Your task to perform on an android device: turn on the 24-hour format for clock Image 0: 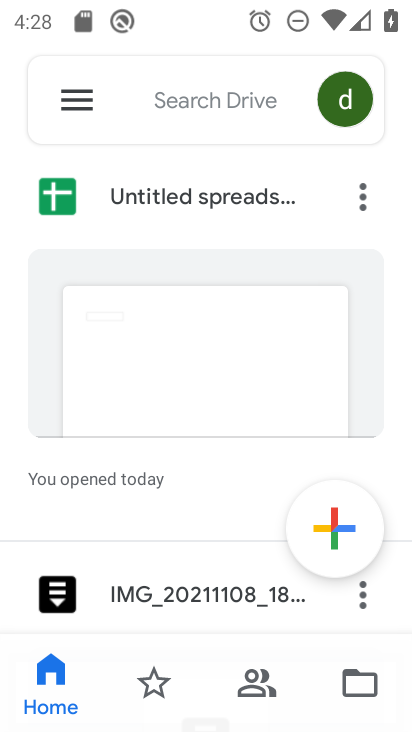
Step 0: press home button
Your task to perform on an android device: turn on the 24-hour format for clock Image 1: 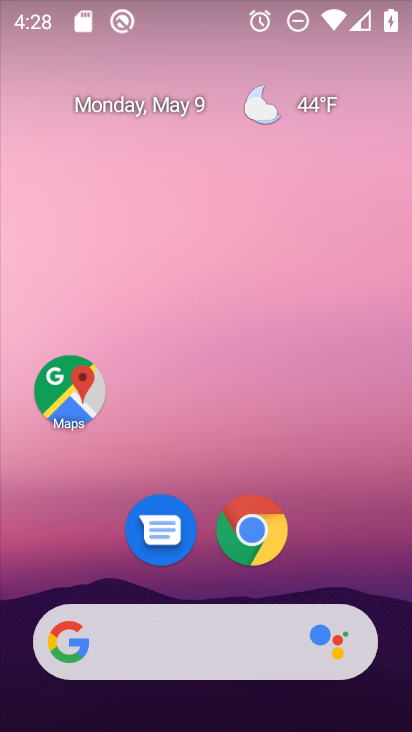
Step 1: drag from (203, 573) to (222, 90)
Your task to perform on an android device: turn on the 24-hour format for clock Image 2: 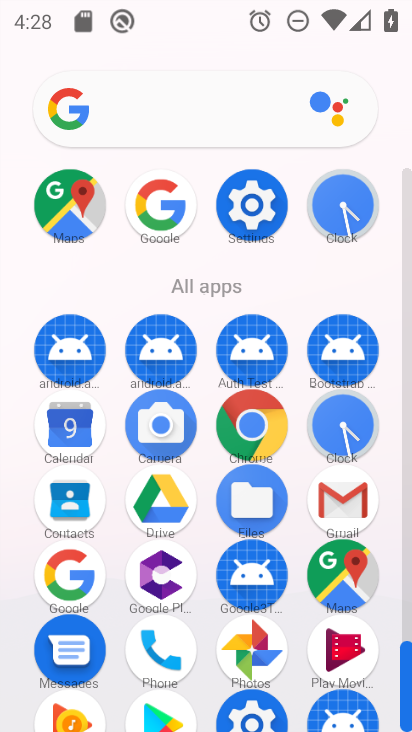
Step 2: click (343, 418)
Your task to perform on an android device: turn on the 24-hour format for clock Image 3: 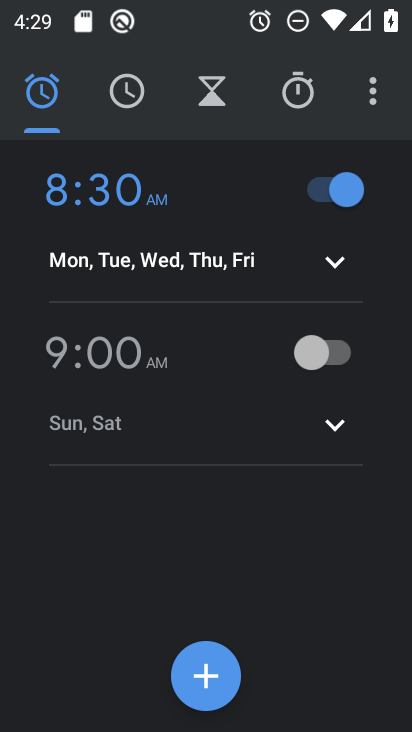
Step 3: click (380, 89)
Your task to perform on an android device: turn on the 24-hour format for clock Image 4: 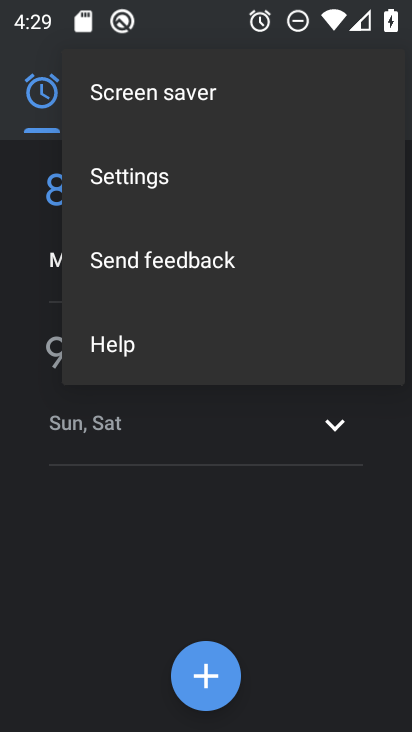
Step 4: click (187, 178)
Your task to perform on an android device: turn on the 24-hour format for clock Image 5: 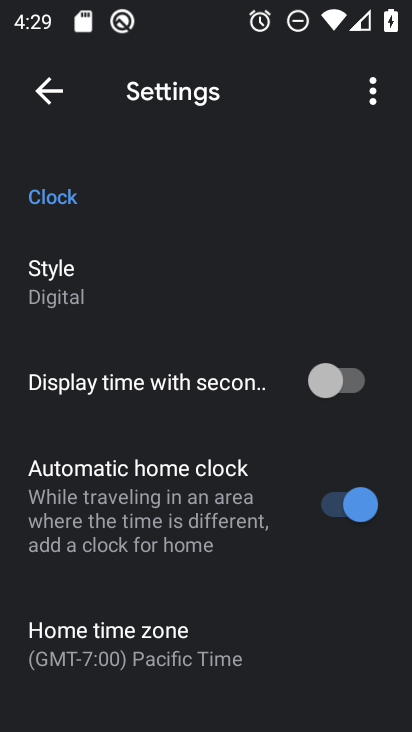
Step 5: drag from (214, 634) to (217, 280)
Your task to perform on an android device: turn on the 24-hour format for clock Image 6: 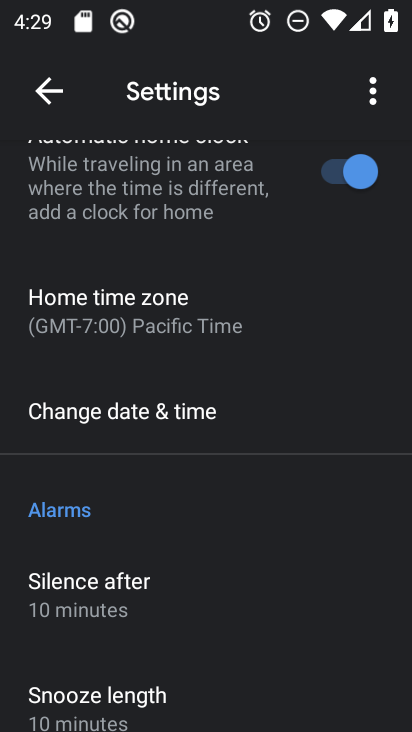
Step 6: click (232, 413)
Your task to perform on an android device: turn on the 24-hour format for clock Image 7: 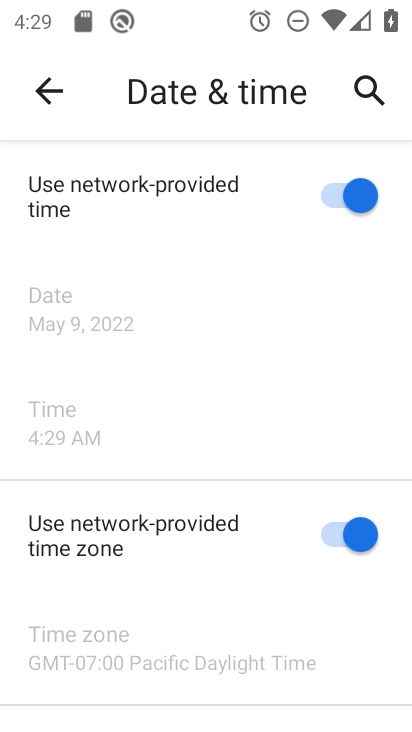
Step 7: drag from (187, 629) to (201, 319)
Your task to perform on an android device: turn on the 24-hour format for clock Image 8: 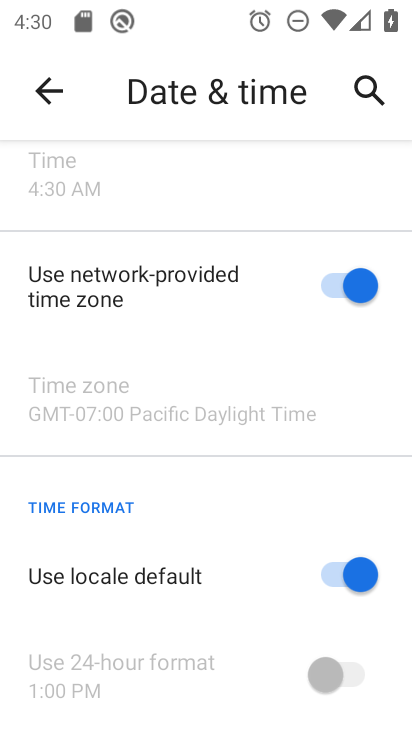
Step 8: click (343, 576)
Your task to perform on an android device: turn on the 24-hour format for clock Image 9: 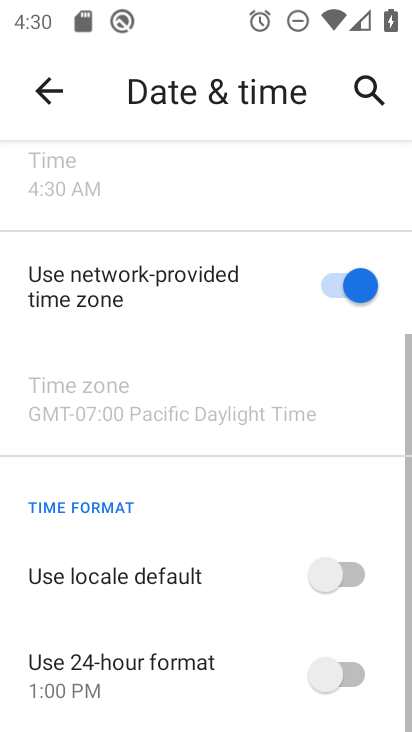
Step 9: click (338, 677)
Your task to perform on an android device: turn on the 24-hour format for clock Image 10: 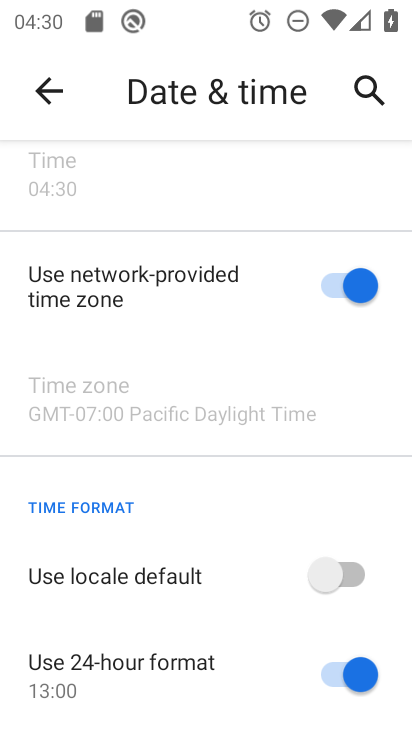
Step 10: task complete